Your task to perform on an android device: Show the shopping cart on ebay.com. Search for logitech g pro on ebay.com, select the first entry, add it to the cart, then select checkout. Image 0: 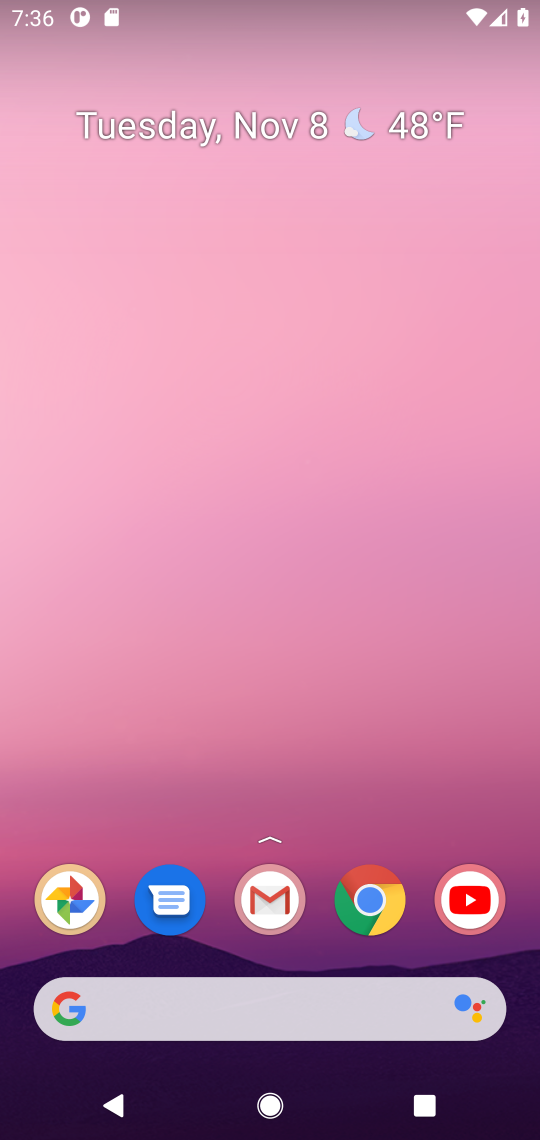
Step 0: drag from (320, 293) to (320, 91)
Your task to perform on an android device: Show the shopping cart on ebay.com. Search for logitech g pro on ebay.com, select the first entry, add it to the cart, then select checkout. Image 1: 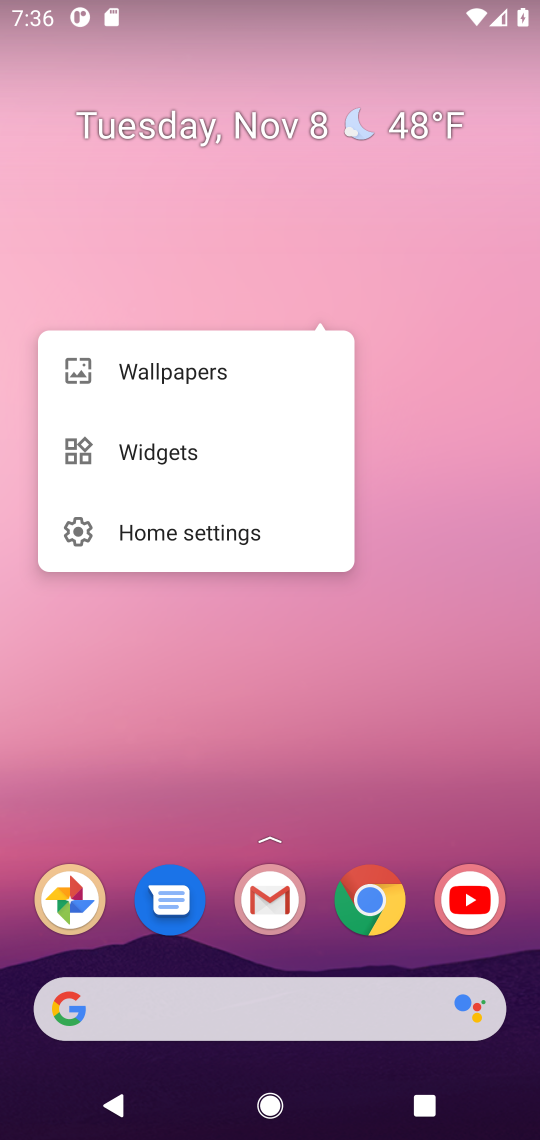
Step 1: drag from (298, 942) to (232, 77)
Your task to perform on an android device: Show the shopping cart on ebay.com. Search for logitech g pro on ebay.com, select the first entry, add it to the cart, then select checkout. Image 2: 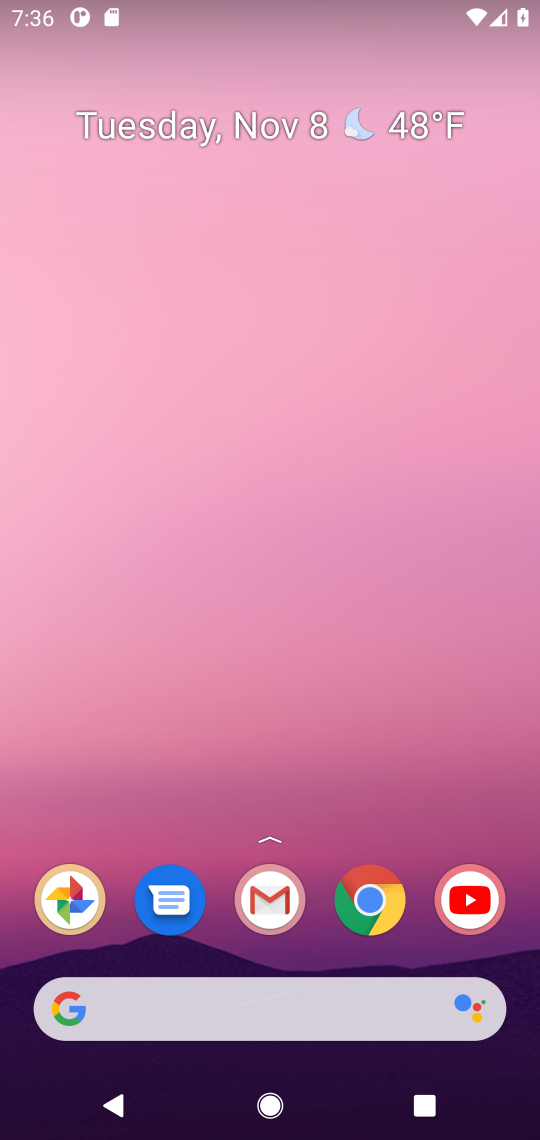
Step 2: click (443, 652)
Your task to perform on an android device: Show the shopping cart on ebay.com. Search for logitech g pro on ebay.com, select the first entry, add it to the cart, then select checkout. Image 3: 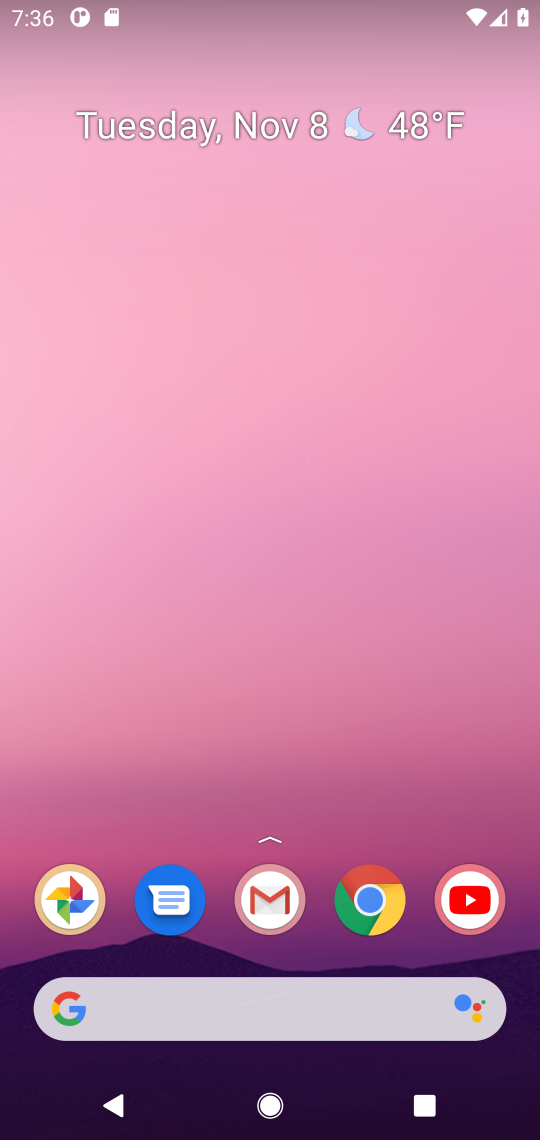
Step 3: drag from (317, 1023) to (317, 46)
Your task to perform on an android device: Show the shopping cart on ebay.com. Search for logitech g pro on ebay.com, select the first entry, add it to the cart, then select checkout. Image 4: 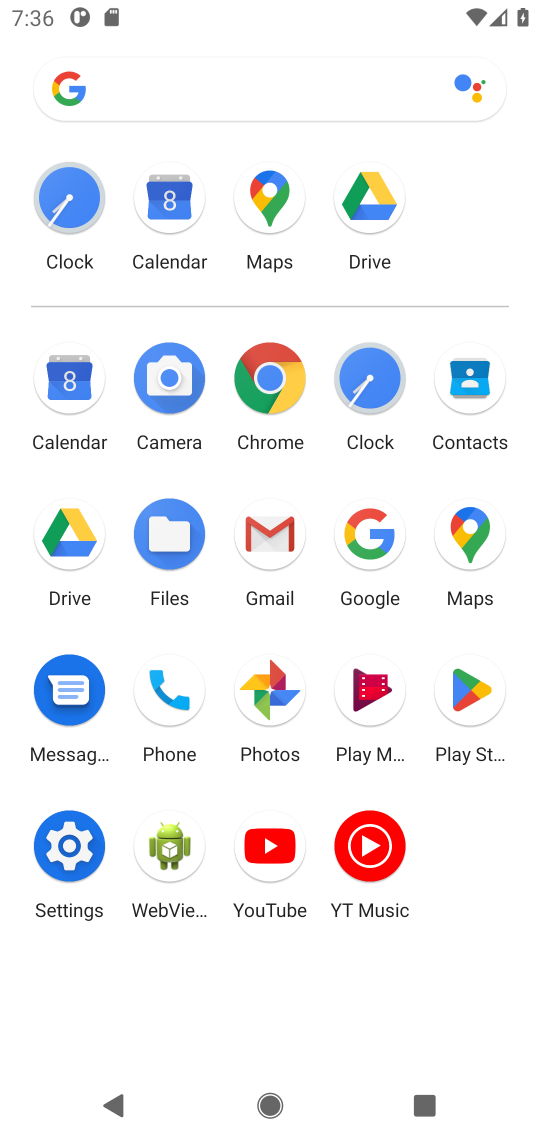
Step 4: drag from (343, 491) to (218, 834)
Your task to perform on an android device: Show the shopping cart on ebay.com. Search for logitech g pro on ebay.com, select the first entry, add it to the cart, then select checkout. Image 5: 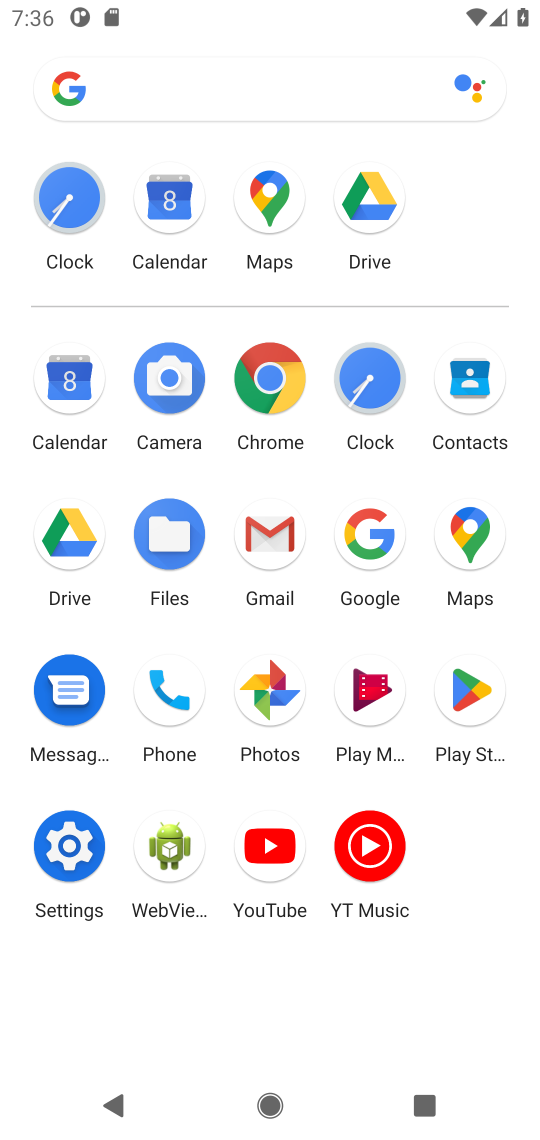
Step 5: click (385, 524)
Your task to perform on an android device: Show the shopping cart on ebay.com. Search for logitech g pro on ebay.com, select the first entry, add it to the cart, then select checkout. Image 6: 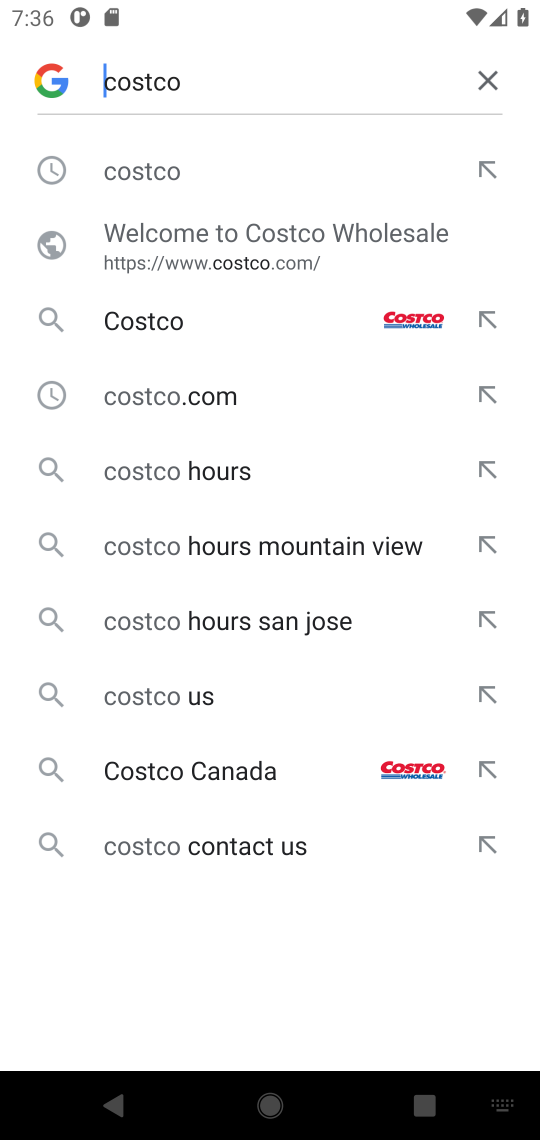
Step 6: click (500, 83)
Your task to perform on an android device: Show the shopping cart on ebay.com. Search for logitech g pro on ebay.com, select the first entry, add it to the cart, then select checkout. Image 7: 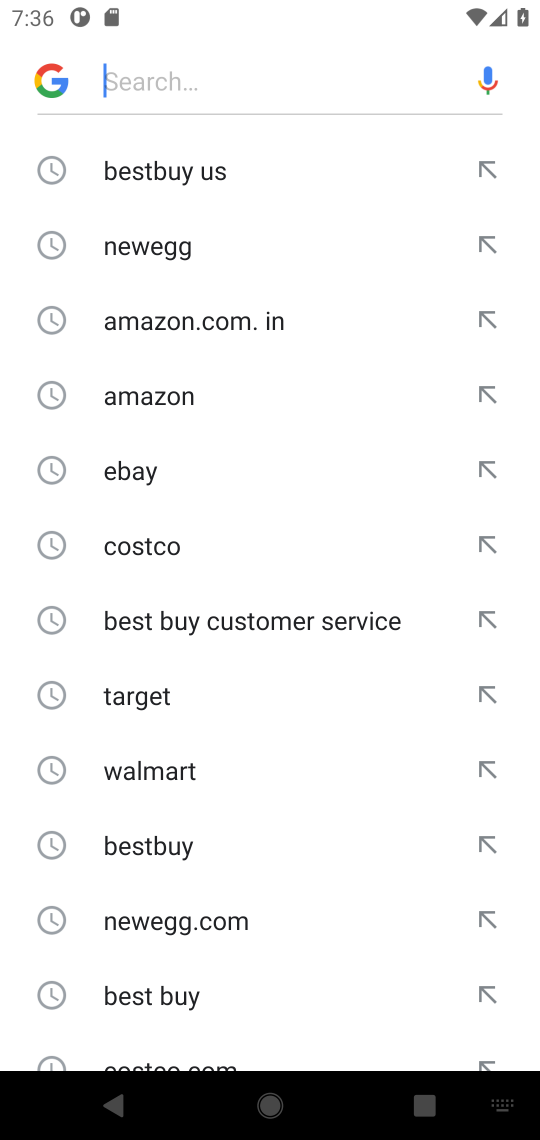
Step 7: click (267, 80)
Your task to perform on an android device: Show the shopping cart on ebay.com. Search for logitech g pro on ebay.com, select the first entry, add it to the cart, then select checkout. Image 8: 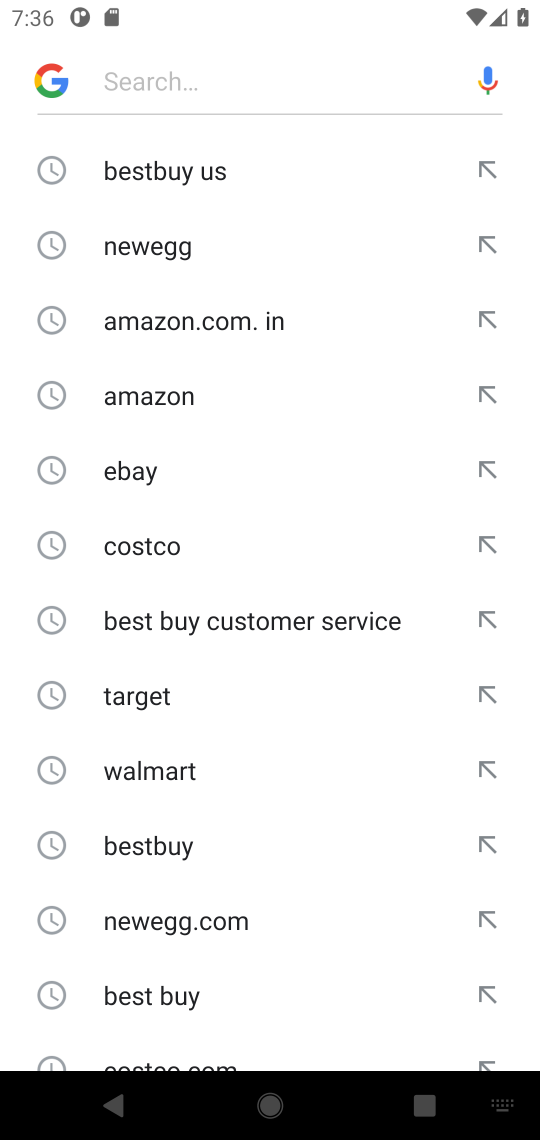
Step 8: type "ebay "
Your task to perform on an android device: Show the shopping cart on ebay.com. Search for logitech g pro on ebay.com, select the first entry, add it to the cart, then select checkout. Image 9: 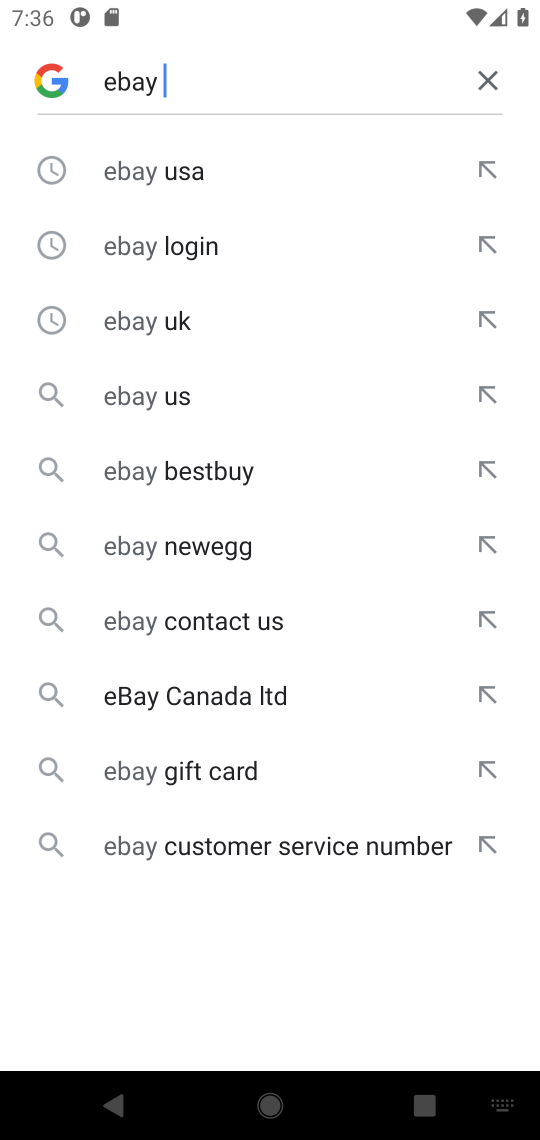
Step 9: click (190, 170)
Your task to perform on an android device: Show the shopping cart on ebay.com. Search for logitech g pro on ebay.com, select the first entry, add it to the cart, then select checkout. Image 10: 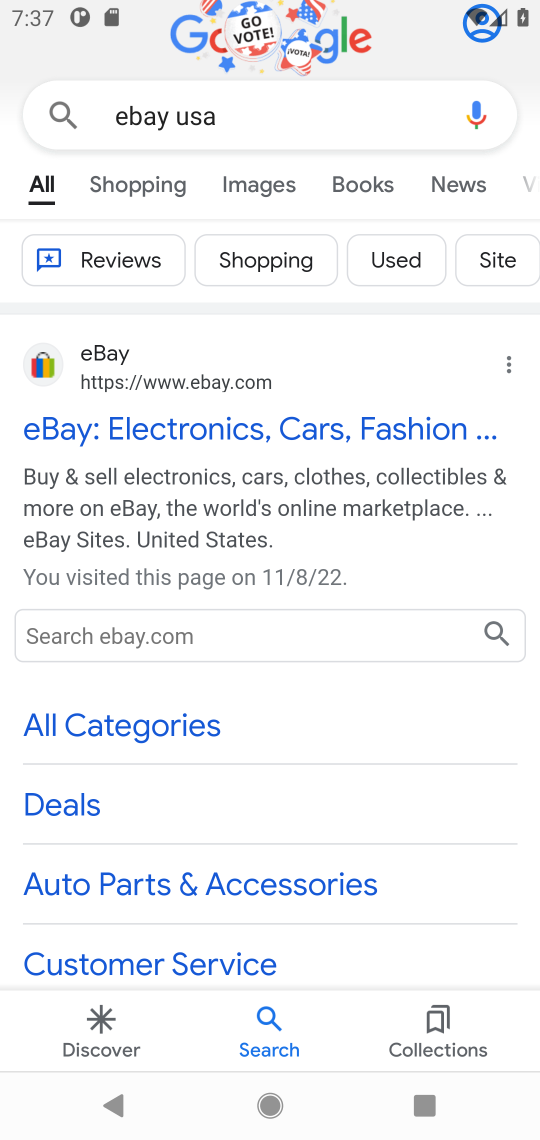
Step 10: click (34, 356)
Your task to perform on an android device: Show the shopping cart on ebay.com. Search for logitech g pro on ebay.com, select the first entry, add it to the cart, then select checkout. Image 11: 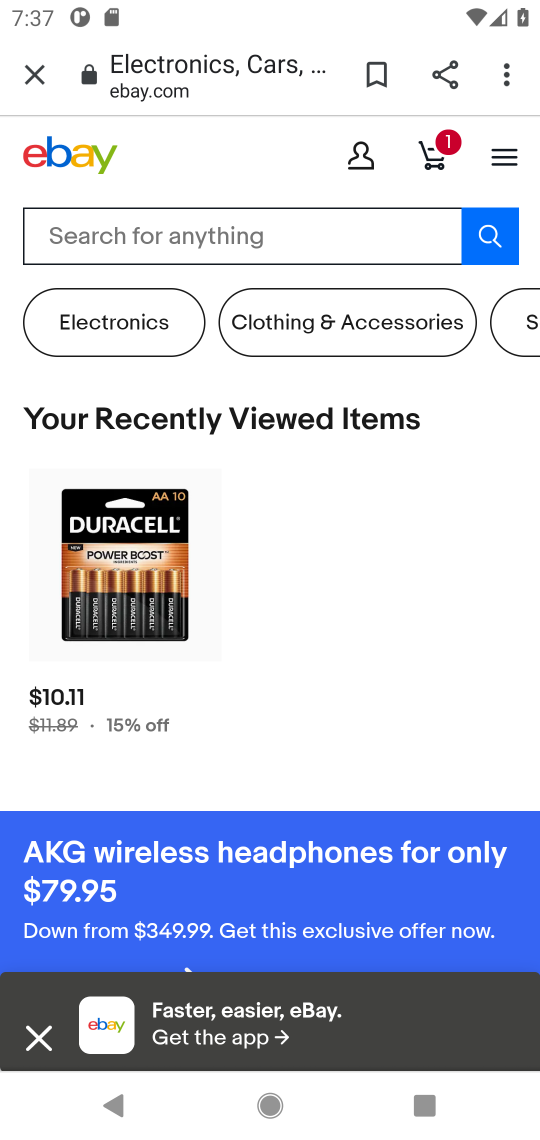
Step 11: click (140, 222)
Your task to perform on an android device: Show the shopping cart on ebay.com. Search for logitech g pro on ebay.com, select the first entry, add it to the cart, then select checkout. Image 12: 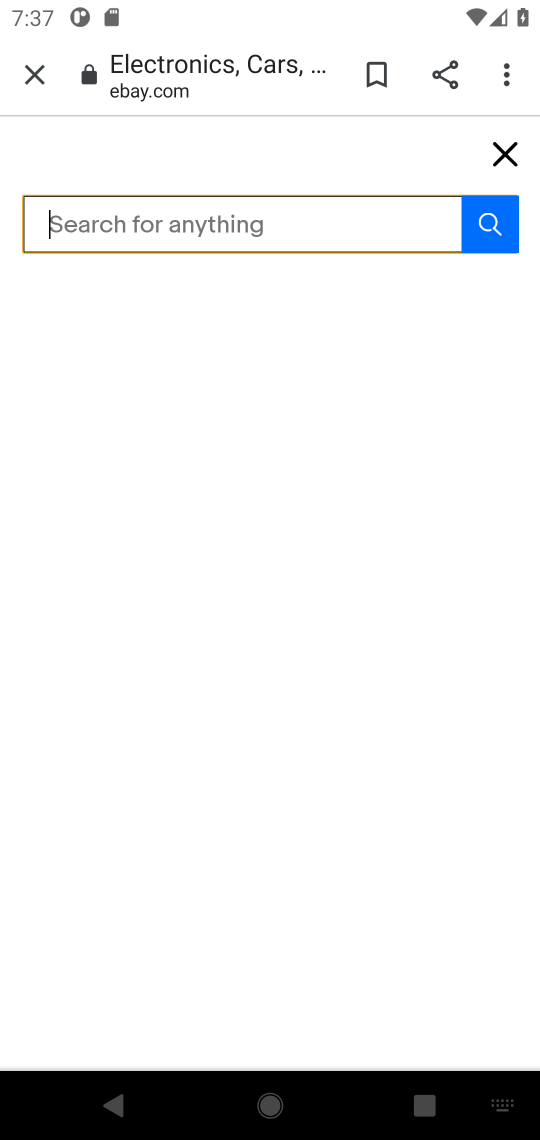
Step 12: type " logitech g pro "
Your task to perform on an android device: Show the shopping cart on ebay.com. Search for logitech g pro on ebay.com, select the first entry, add it to the cart, then select checkout. Image 13: 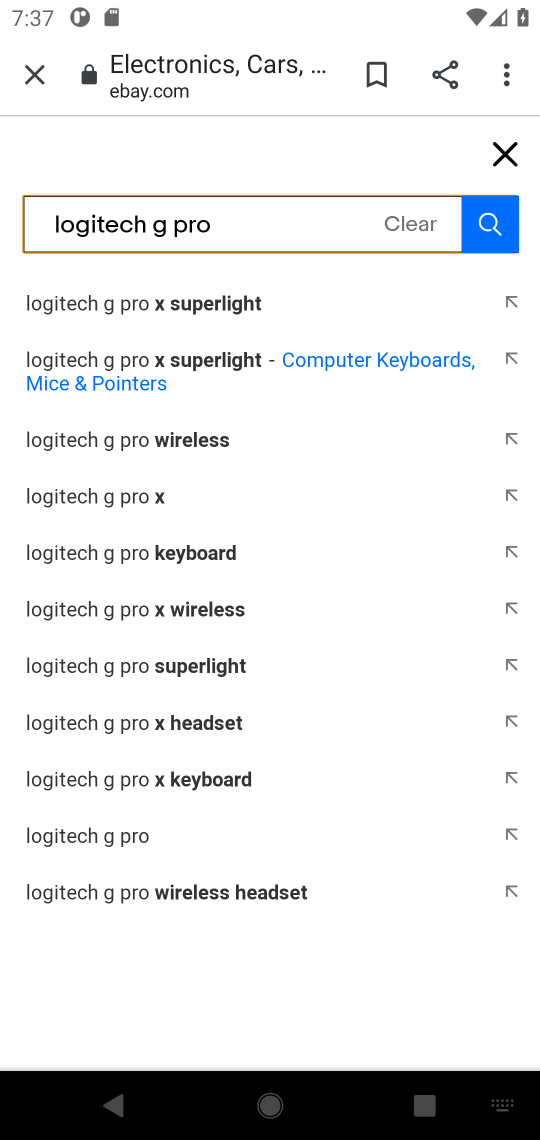
Step 13: click (241, 307)
Your task to perform on an android device: Show the shopping cart on ebay.com. Search for logitech g pro on ebay.com, select the first entry, add it to the cart, then select checkout. Image 14: 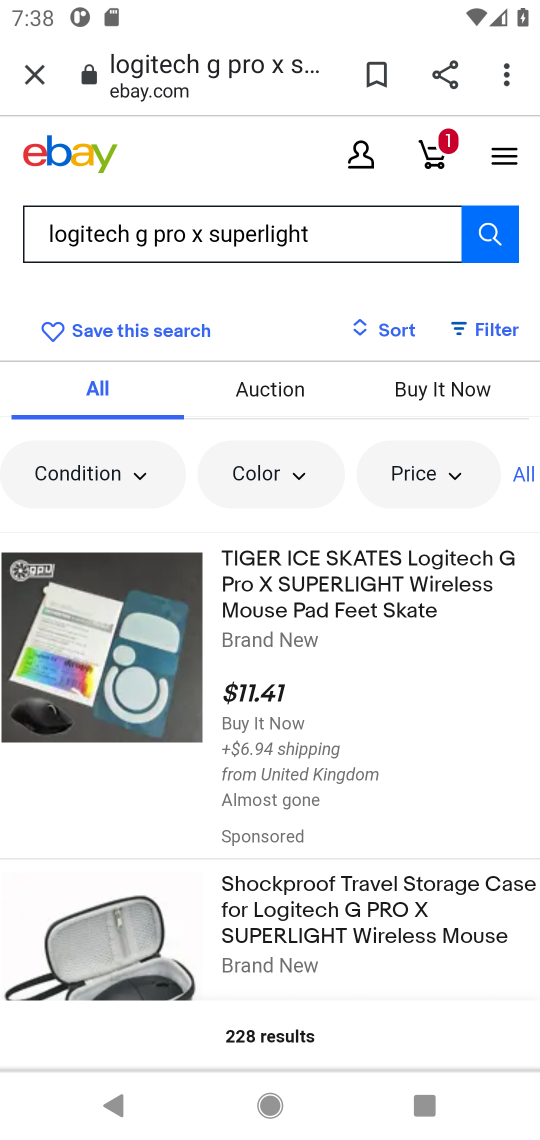
Step 14: click (506, 243)
Your task to perform on an android device: Show the shopping cart on ebay.com. Search for logitech g pro on ebay.com, select the first entry, add it to the cart, then select checkout. Image 15: 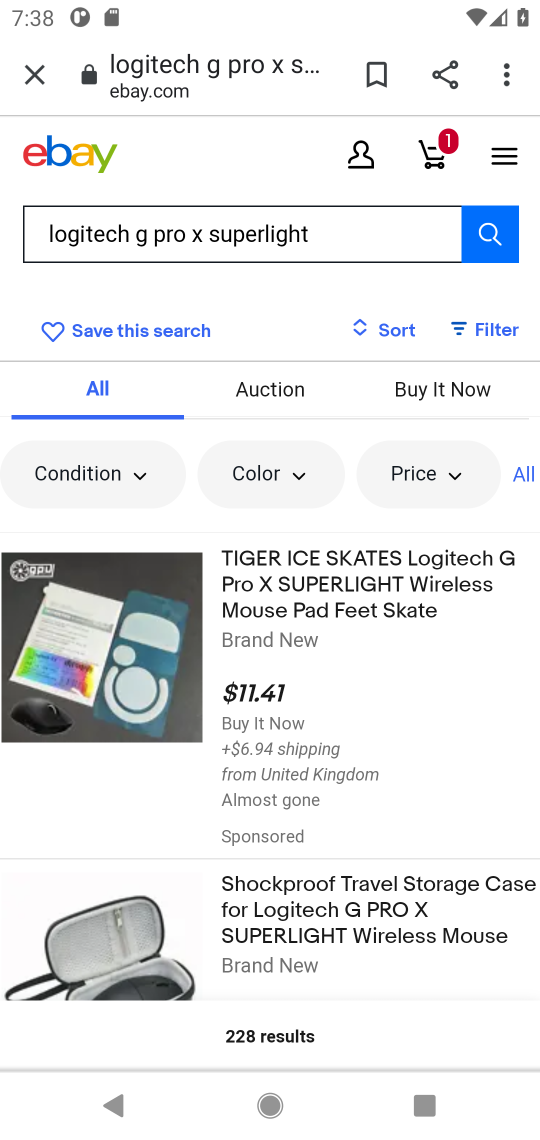
Step 15: click (340, 595)
Your task to perform on an android device: Show the shopping cart on ebay.com. Search for logitech g pro on ebay.com, select the first entry, add it to the cart, then select checkout. Image 16: 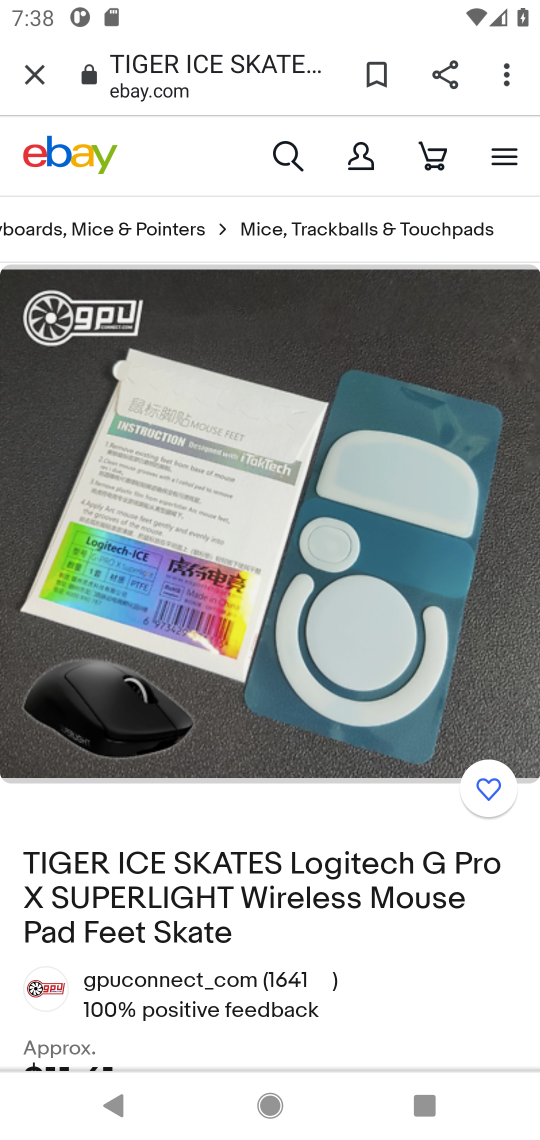
Step 16: drag from (331, 944) to (393, 319)
Your task to perform on an android device: Show the shopping cart on ebay.com. Search for logitech g pro on ebay.com, select the first entry, add it to the cart, then select checkout. Image 17: 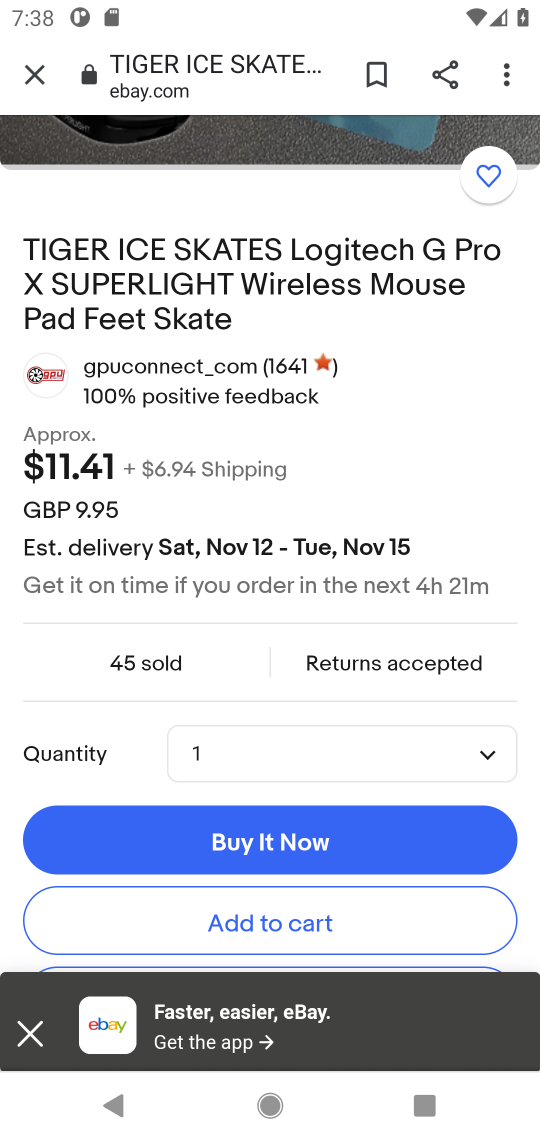
Step 17: click (295, 827)
Your task to perform on an android device: Show the shopping cart on ebay.com. Search for logitech g pro on ebay.com, select the first entry, add it to the cart, then select checkout. Image 18: 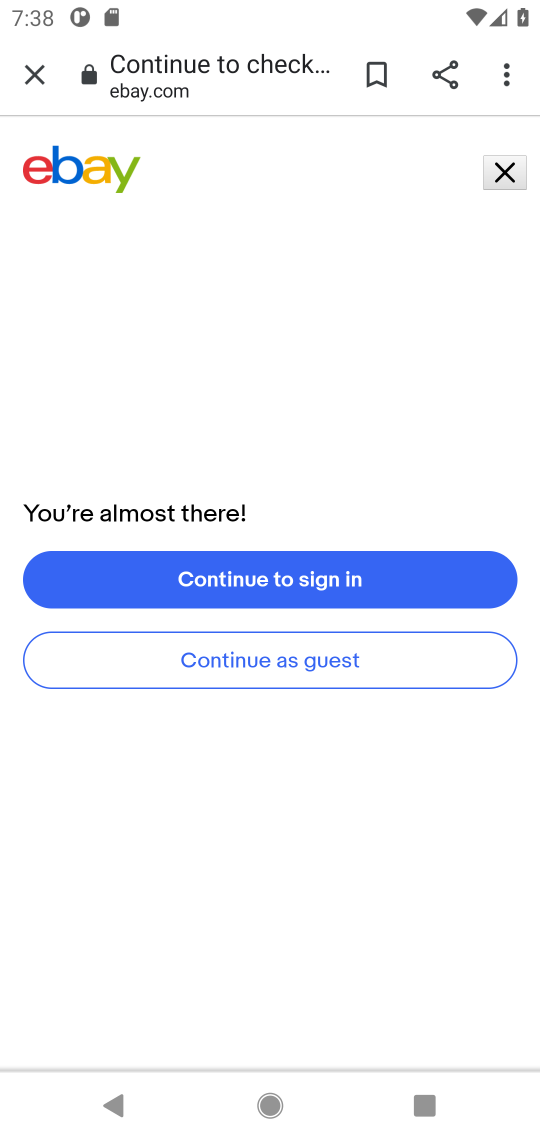
Step 18: task complete